Your task to perform on an android device: Open Wikipedia Image 0: 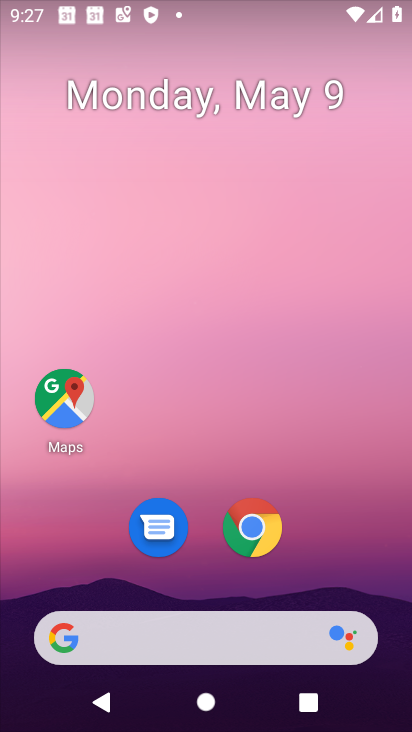
Step 0: click (256, 539)
Your task to perform on an android device: Open Wikipedia Image 1: 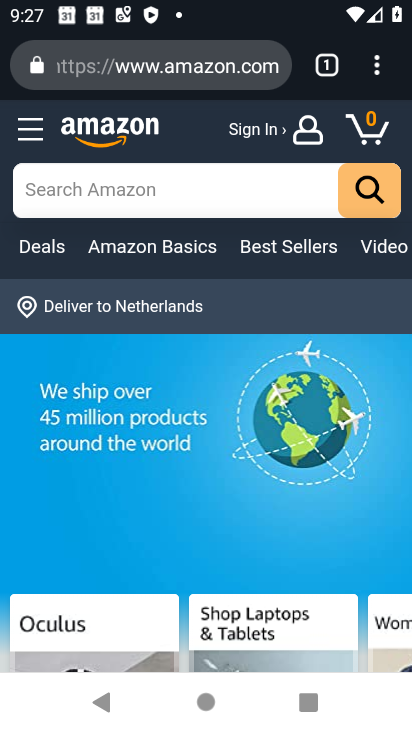
Step 1: click (322, 71)
Your task to perform on an android device: Open Wikipedia Image 2: 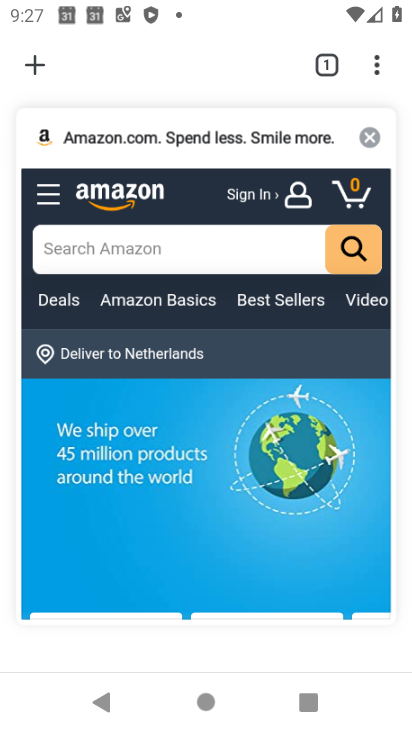
Step 2: click (27, 70)
Your task to perform on an android device: Open Wikipedia Image 3: 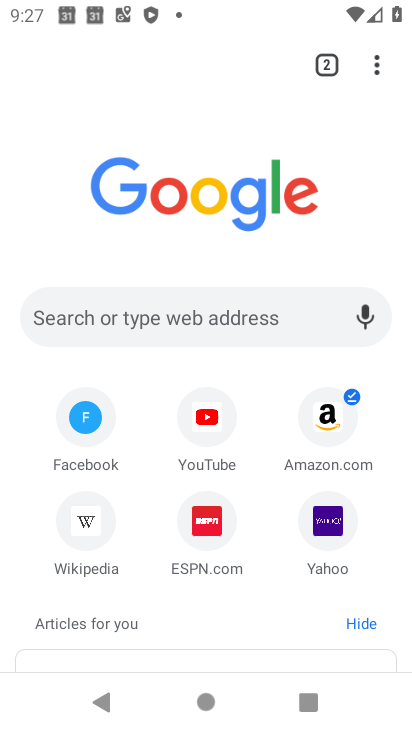
Step 3: click (89, 519)
Your task to perform on an android device: Open Wikipedia Image 4: 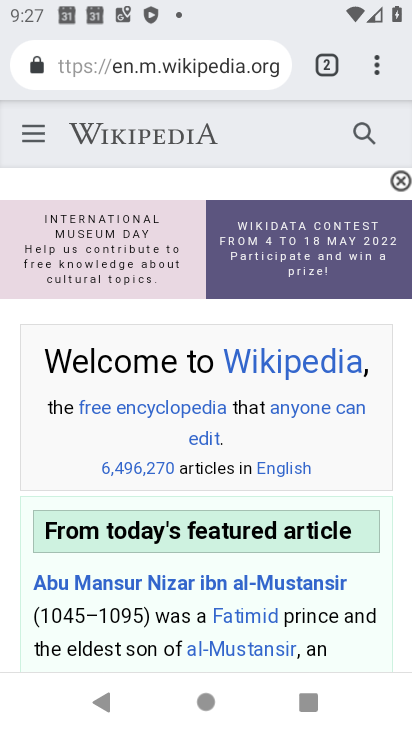
Step 4: task complete